Your task to perform on an android device: Turn on the flashlight Image 0: 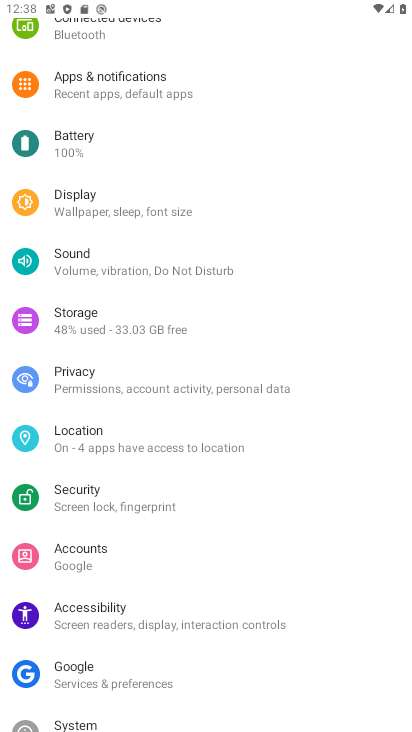
Step 0: press home button
Your task to perform on an android device: Turn on the flashlight Image 1: 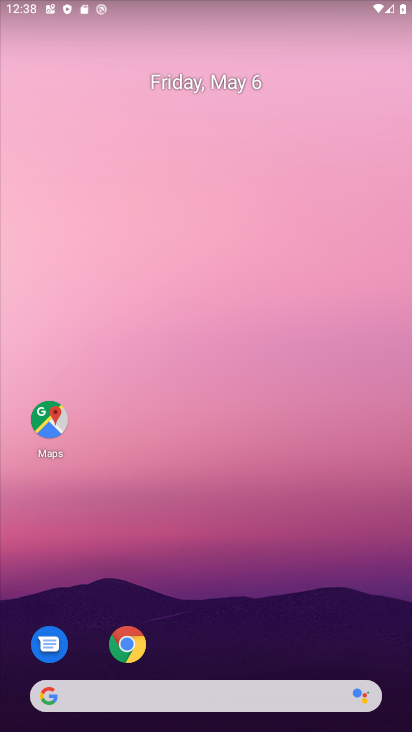
Step 1: task complete